Your task to perform on an android device: toggle improve location accuracy Image 0: 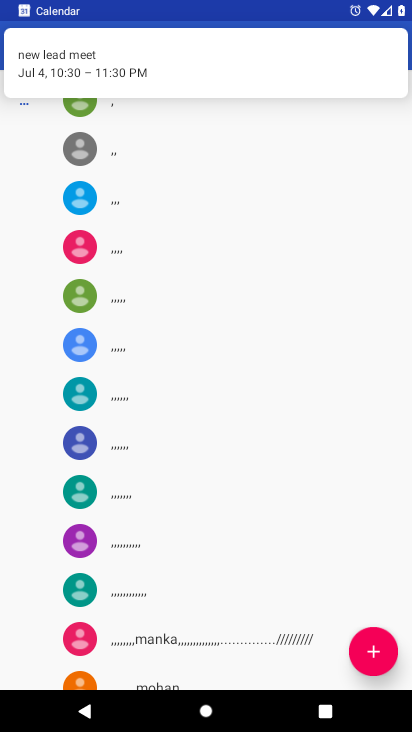
Step 0: press home button
Your task to perform on an android device: toggle improve location accuracy Image 1: 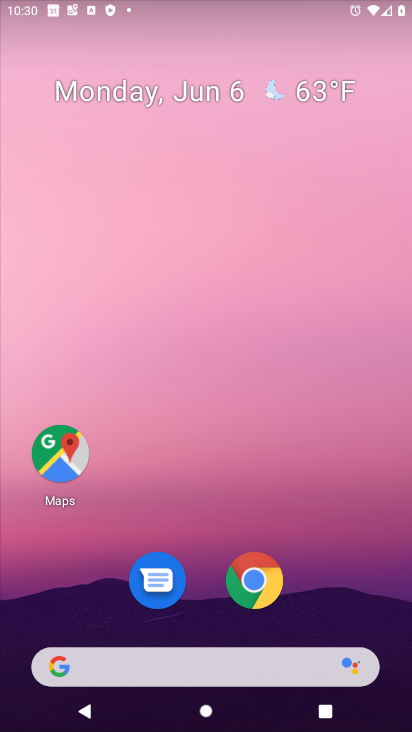
Step 1: drag from (352, 564) to (266, 6)
Your task to perform on an android device: toggle improve location accuracy Image 2: 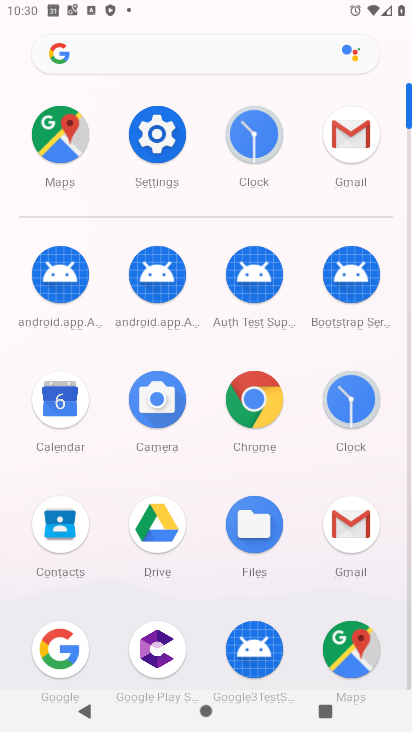
Step 2: click (169, 127)
Your task to perform on an android device: toggle improve location accuracy Image 3: 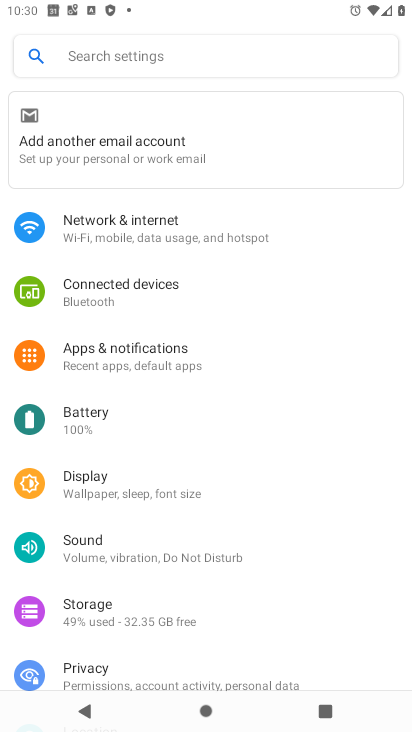
Step 3: drag from (223, 609) to (322, 174)
Your task to perform on an android device: toggle improve location accuracy Image 4: 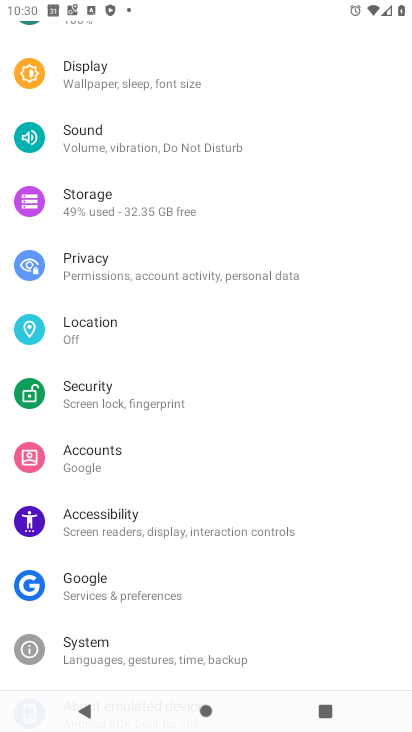
Step 4: click (86, 318)
Your task to perform on an android device: toggle improve location accuracy Image 5: 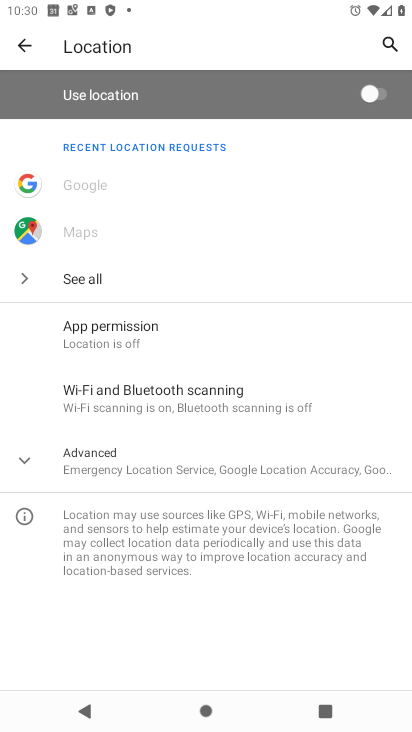
Step 5: click (183, 475)
Your task to perform on an android device: toggle improve location accuracy Image 6: 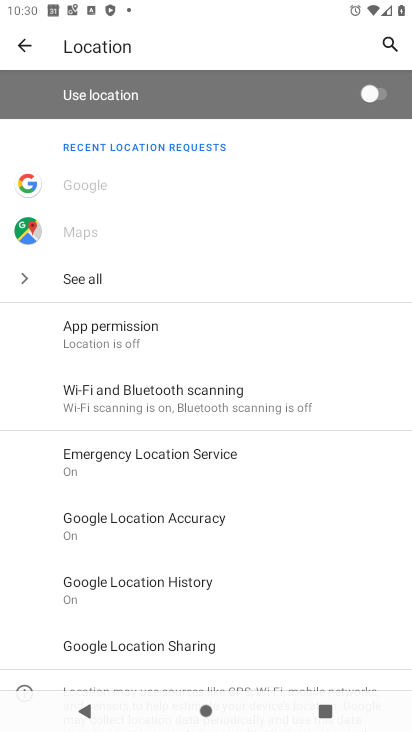
Step 6: click (195, 522)
Your task to perform on an android device: toggle improve location accuracy Image 7: 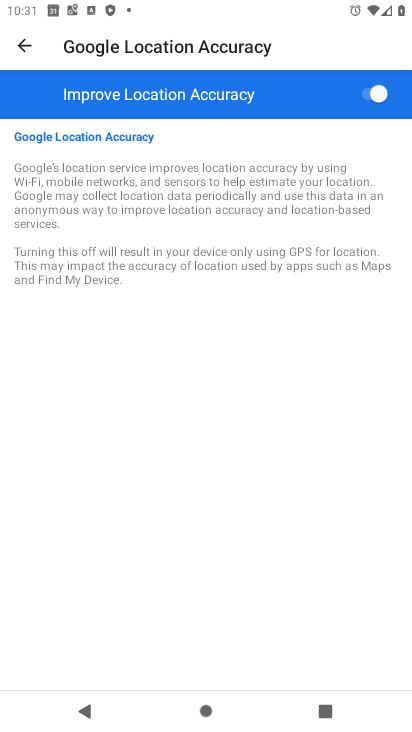
Step 7: click (359, 103)
Your task to perform on an android device: toggle improve location accuracy Image 8: 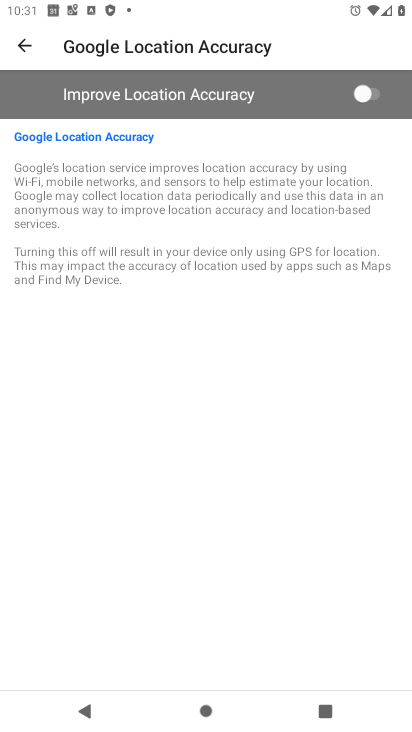
Step 8: task complete